Your task to perform on an android device: allow notifications from all sites in the chrome app Image 0: 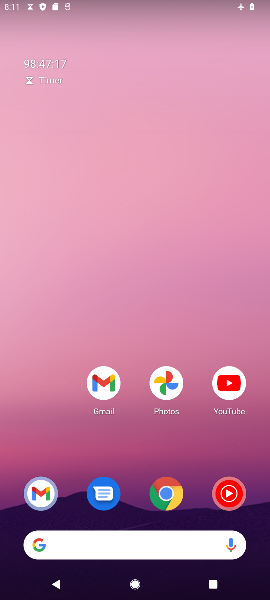
Step 0: drag from (123, 553) to (130, 199)
Your task to perform on an android device: allow notifications from all sites in the chrome app Image 1: 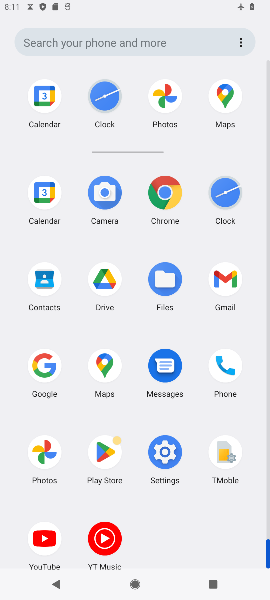
Step 1: click (165, 188)
Your task to perform on an android device: allow notifications from all sites in the chrome app Image 2: 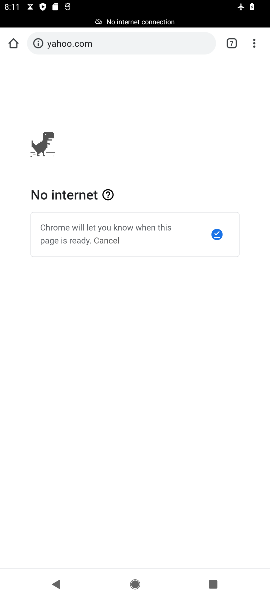
Step 2: click (254, 48)
Your task to perform on an android device: allow notifications from all sites in the chrome app Image 3: 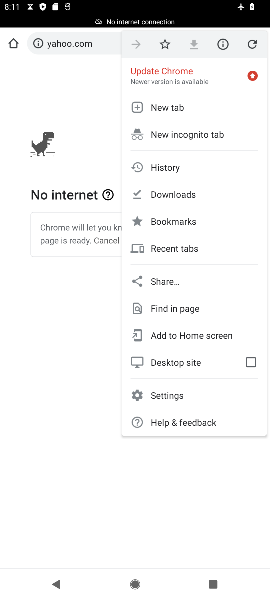
Step 3: click (164, 388)
Your task to perform on an android device: allow notifications from all sites in the chrome app Image 4: 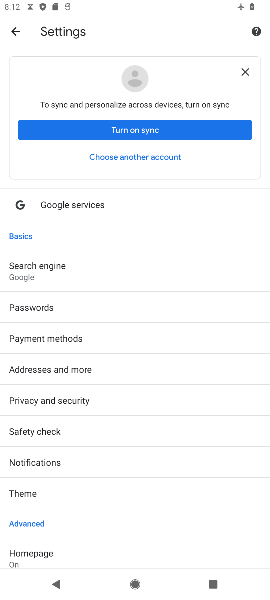
Step 4: drag from (56, 483) to (71, 256)
Your task to perform on an android device: allow notifications from all sites in the chrome app Image 5: 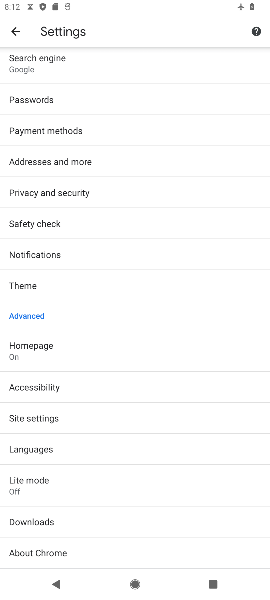
Step 5: click (53, 413)
Your task to perform on an android device: allow notifications from all sites in the chrome app Image 6: 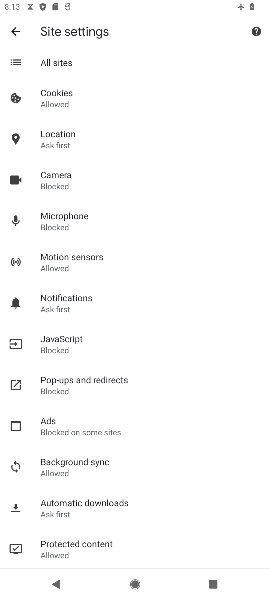
Step 6: click (68, 90)
Your task to perform on an android device: allow notifications from all sites in the chrome app Image 7: 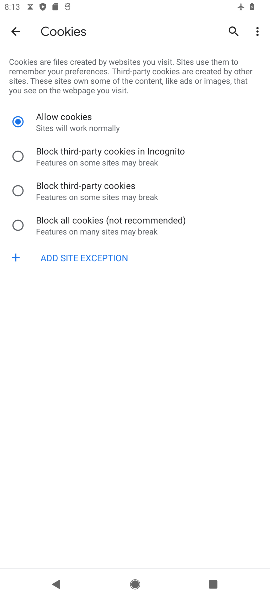
Step 7: click (10, 33)
Your task to perform on an android device: allow notifications from all sites in the chrome app Image 8: 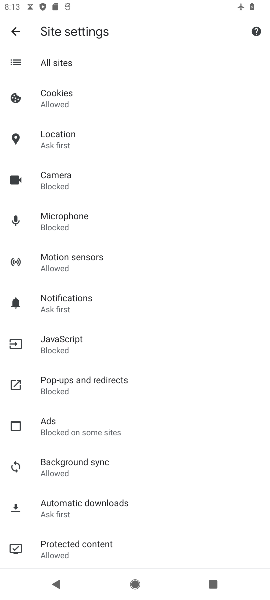
Step 8: click (58, 169)
Your task to perform on an android device: allow notifications from all sites in the chrome app Image 9: 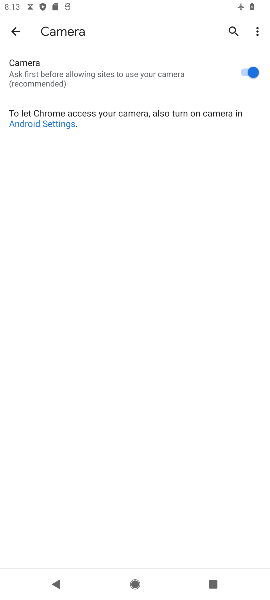
Step 9: click (12, 37)
Your task to perform on an android device: allow notifications from all sites in the chrome app Image 10: 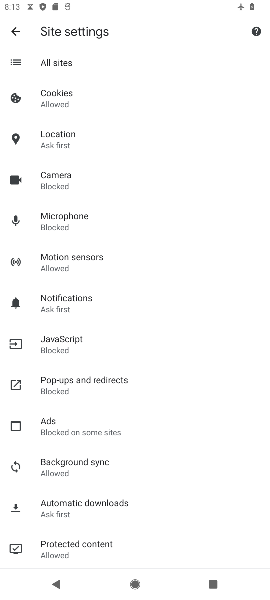
Step 10: click (59, 258)
Your task to perform on an android device: allow notifications from all sites in the chrome app Image 11: 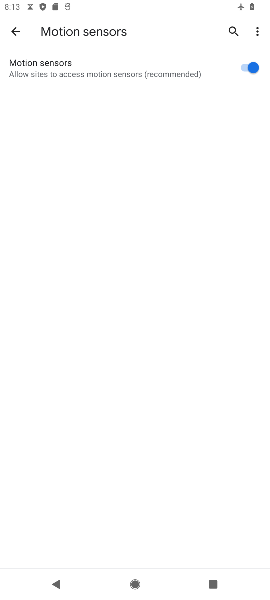
Step 11: click (18, 35)
Your task to perform on an android device: allow notifications from all sites in the chrome app Image 12: 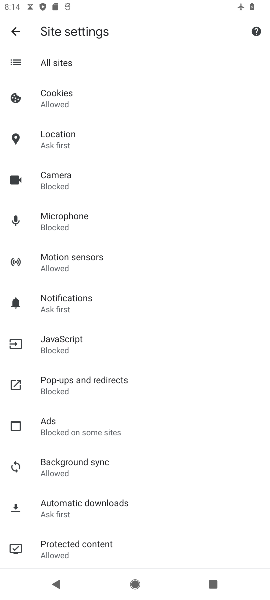
Step 12: task complete